Your task to perform on an android device: change timer sound Image 0: 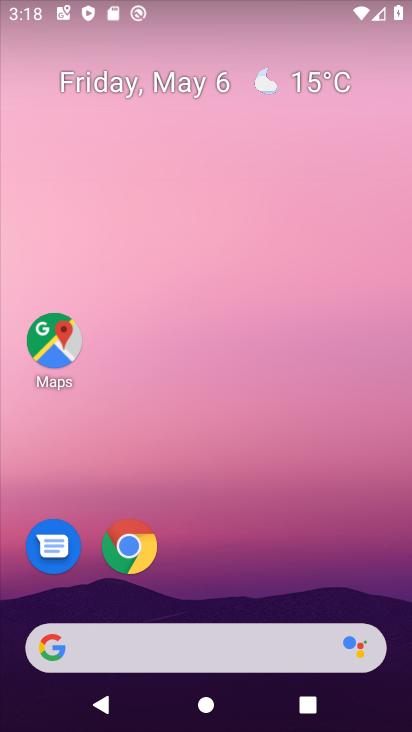
Step 0: drag from (156, 628) to (213, 354)
Your task to perform on an android device: change timer sound Image 1: 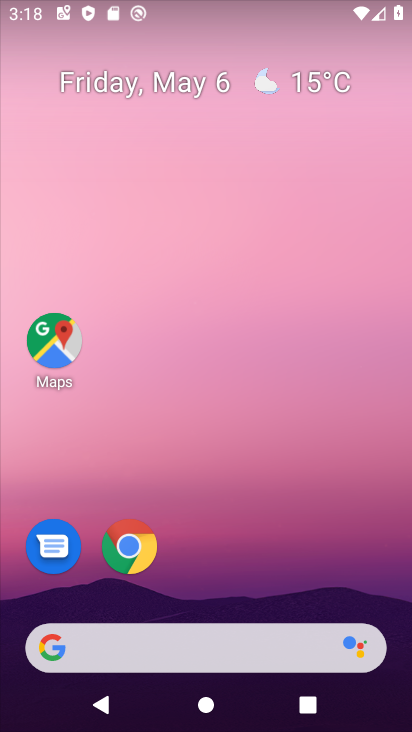
Step 1: drag from (232, 588) to (284, 226)
Your task to perform on an android device: change timer sound Image 2: 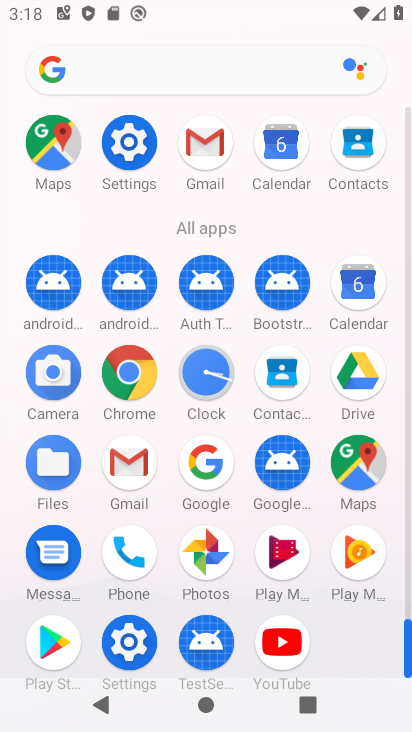
Step 2: click (194, 378)
Your task to perform on an android device: change timer sound Image 3: 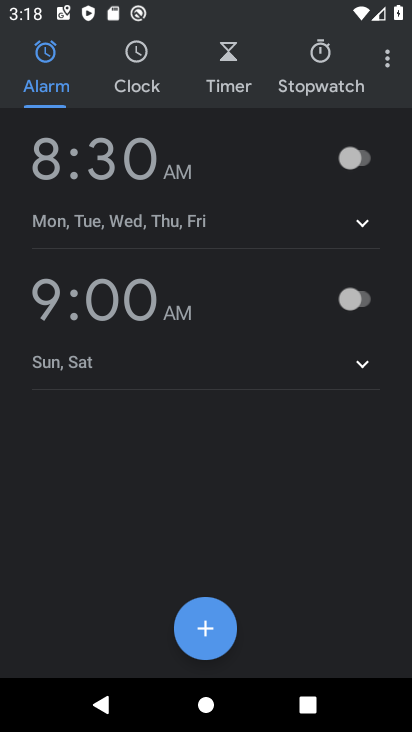
Step 3: click (385, 60)
Your task to perform on an android device: change timer sound Image 4: 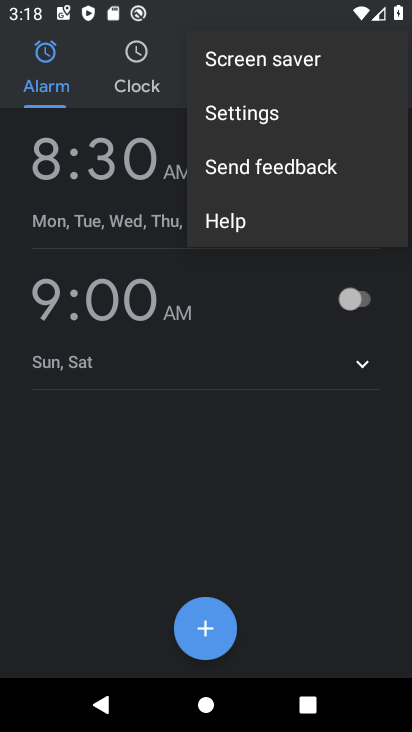
Step 4: click (246, 110)
Your task to perform on an android device: change timer sound Image 5: 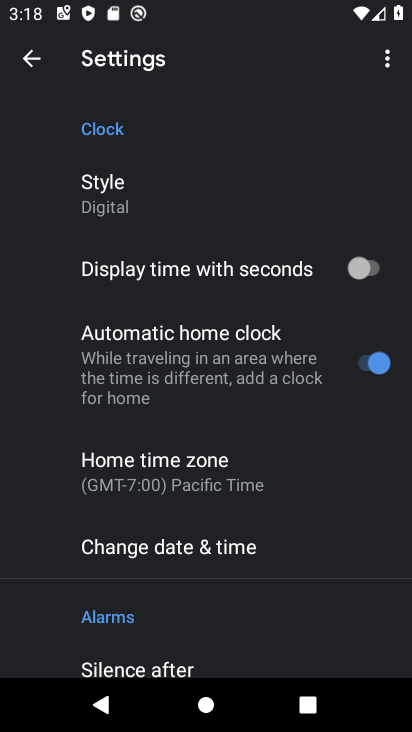
Step 5: drag from (146, 688) to (156, 396)
Your task to perform on an android device: change timer sound Image 6: 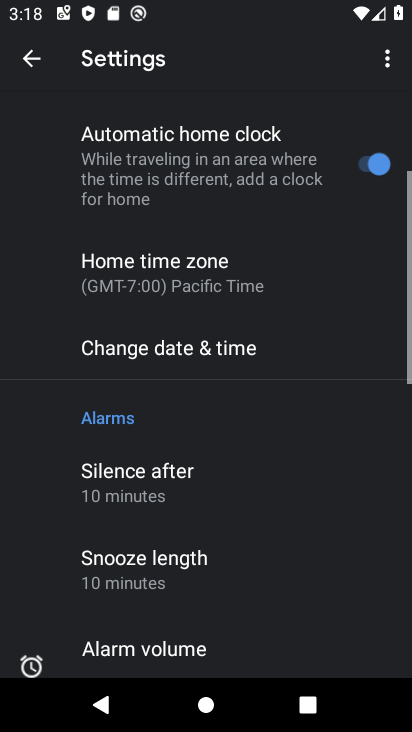
Step 6: drag from (156, 646) to (166, 409)
Your task to perform on an android device: change timer sound Image 7: 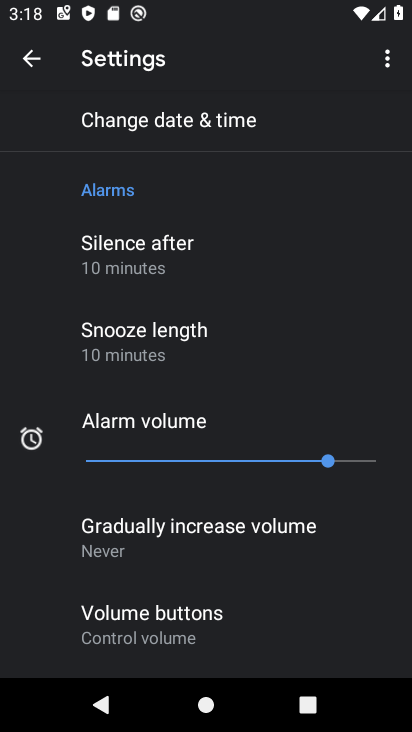
Step 7: drag from (153, 590) to (156, 299)
Your task to perform on an android device: change timer sound Image 8: 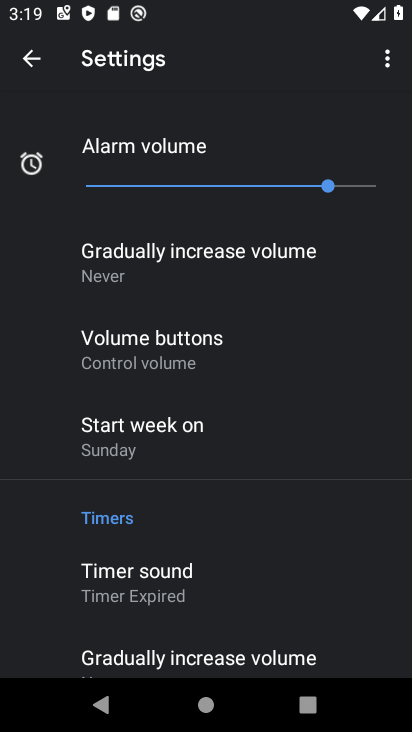
Step 8: click (130, 570)
Your task to perform on an android device: change timer sound Image 9: 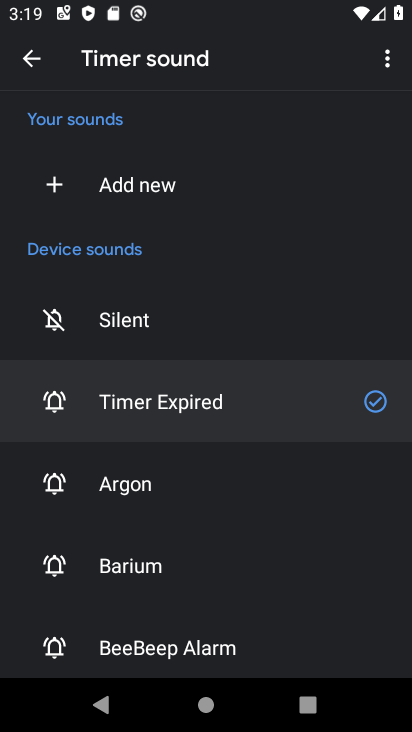
Step 9: click (137, 480)
Your task to perform on an android device: change timer sound Image 10: 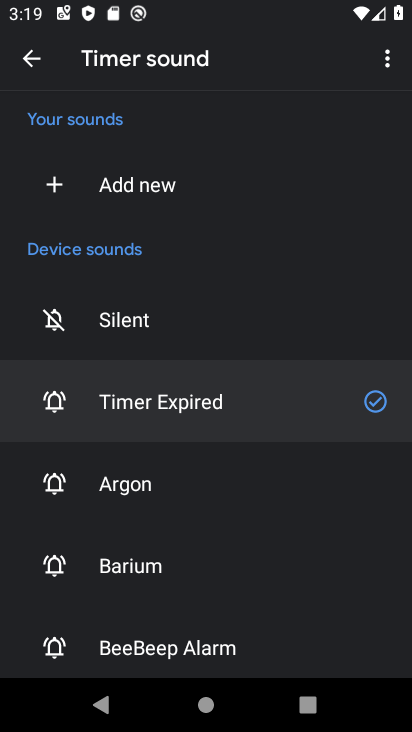
Step 10: click (121, 491)
Your task to perform on an android device: change timer sound Image 11: 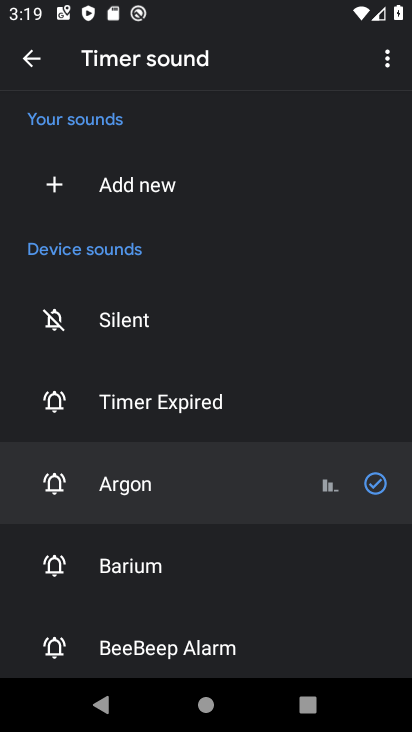
Step 11: task complete